Your task to perform on an android device: add a contact in the contacts app Image 0: 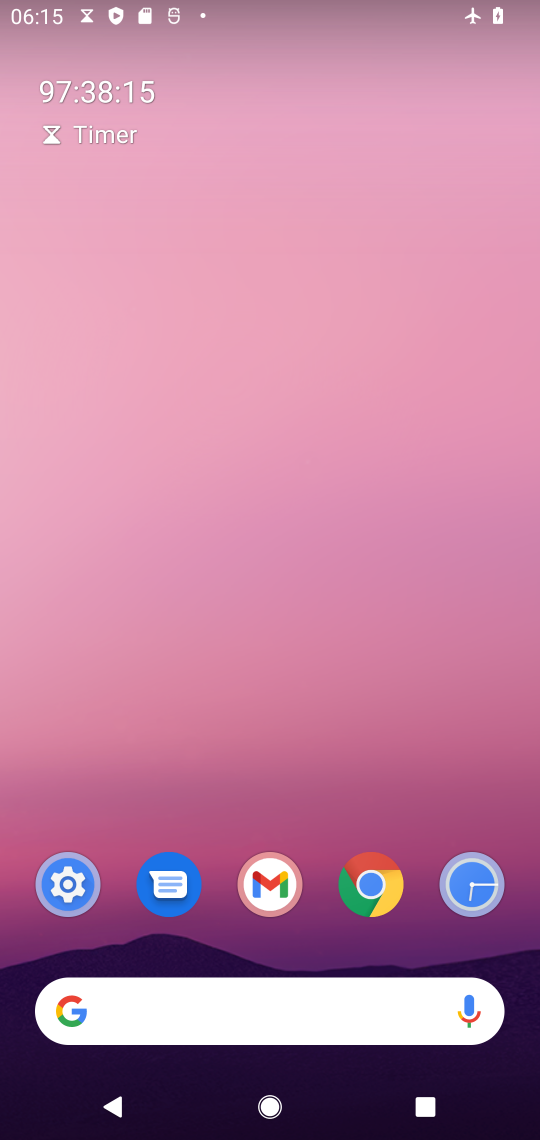
Step 0: drag from (244, 964) to (256, 209)
Your task to perform on an android device: add a contact in the contacts app Image 1: 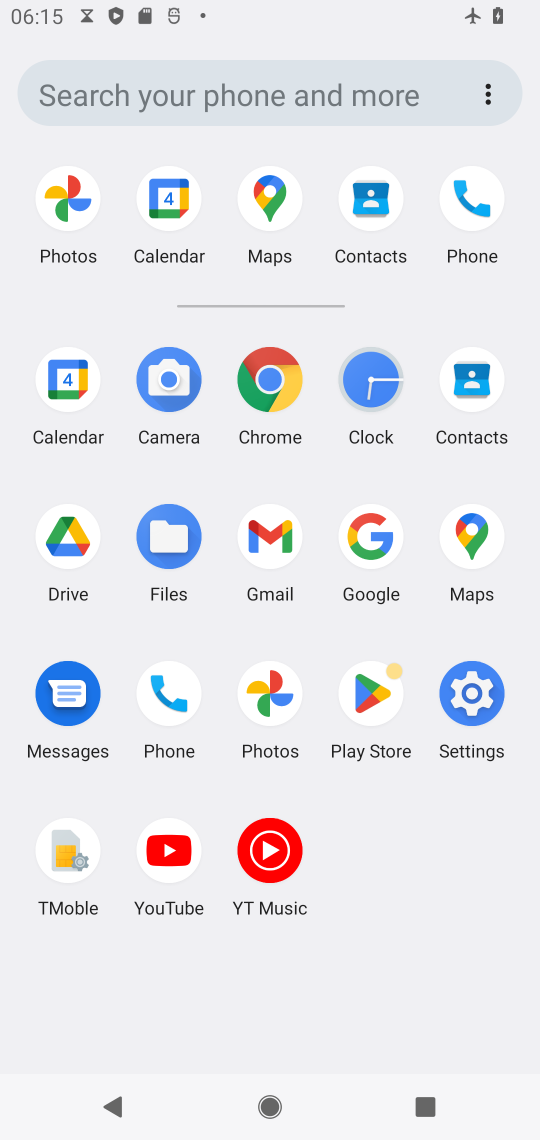
Step 1: click (164, 700)
Your task to perform on an android device: add a contact in the contacts app Image 2: 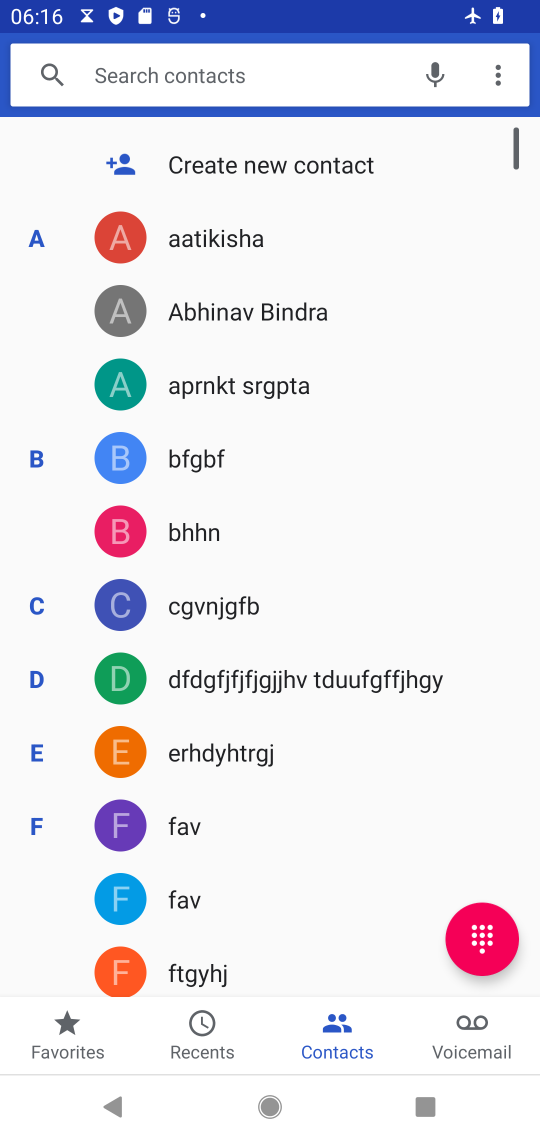
Step 2: click (221, 163)
Your task to perform on an android device: add a contact in the contacts app Image 3: 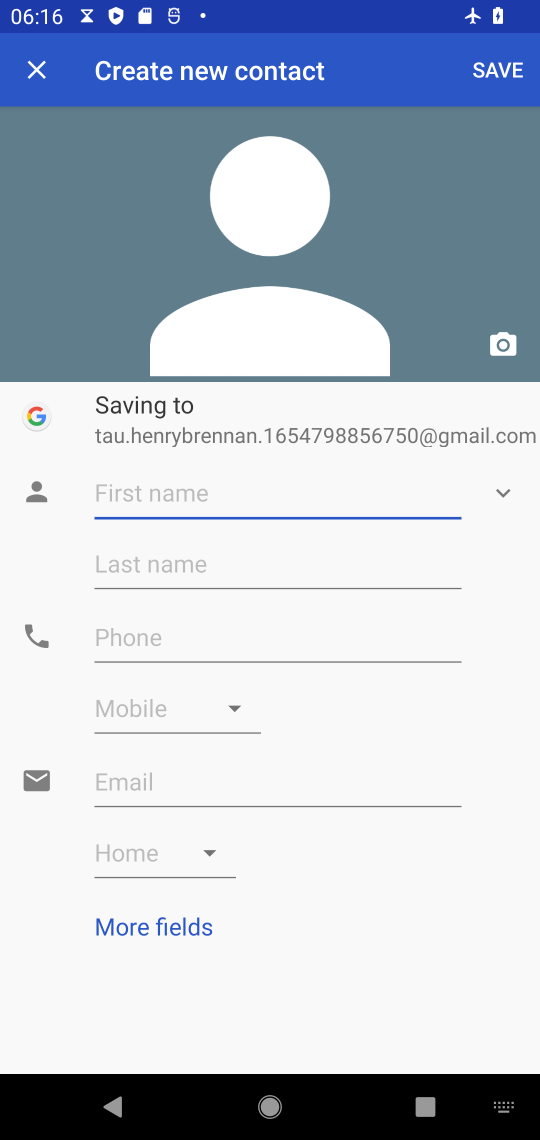
Step 3: click (241, 477)
Your task to perform on an android device: add a contact in the contacts app Image 4: 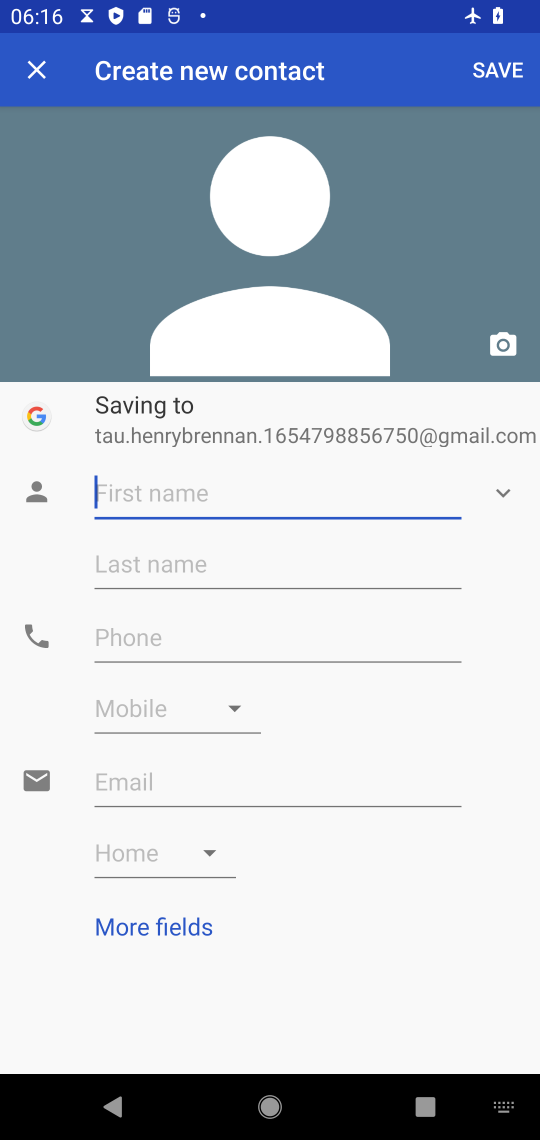
Step 4: type "huhuhuhuhuhuhuhuhuhuhuhuhu  "
Your task to perform on an android device: add a contact in the contacts app Image 5: 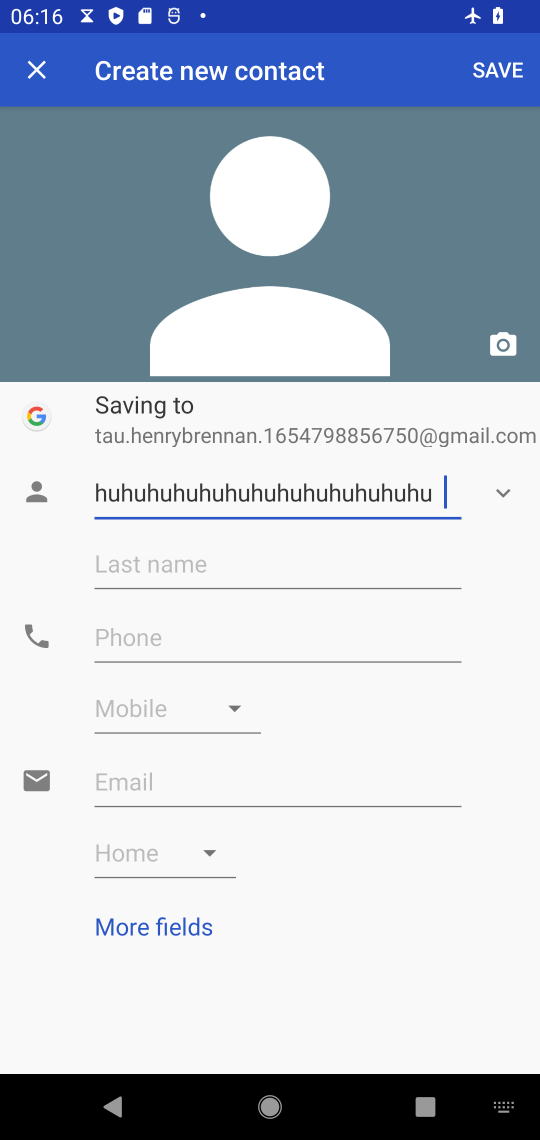
Step 5: click (221, 636)
Your task to perform on an android device: add a contact in the contacts app Image 6: 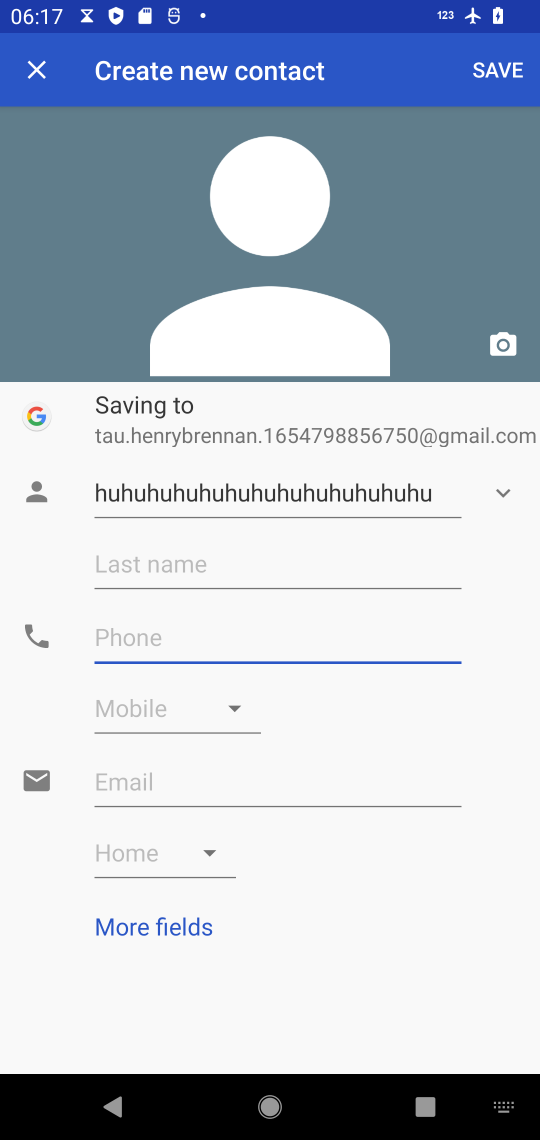
Step 6: type "4444444444444444444"
Your task to perform on an android device: add a contact in the contacts app Image 7: 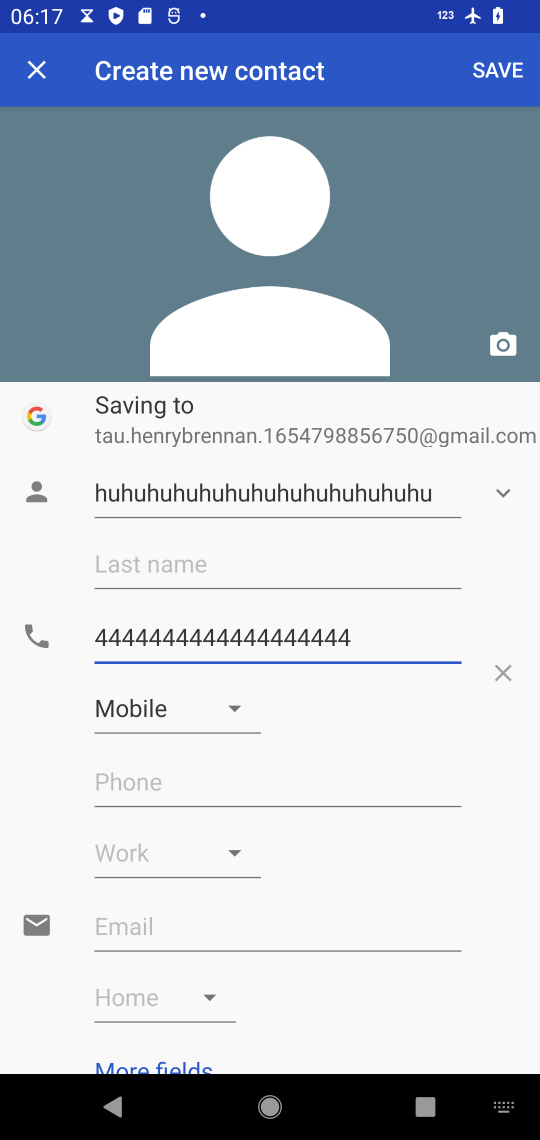
Step 7: click (507, 73)
Your task to perform on an android device: add a contact in the contacts app Image 8: 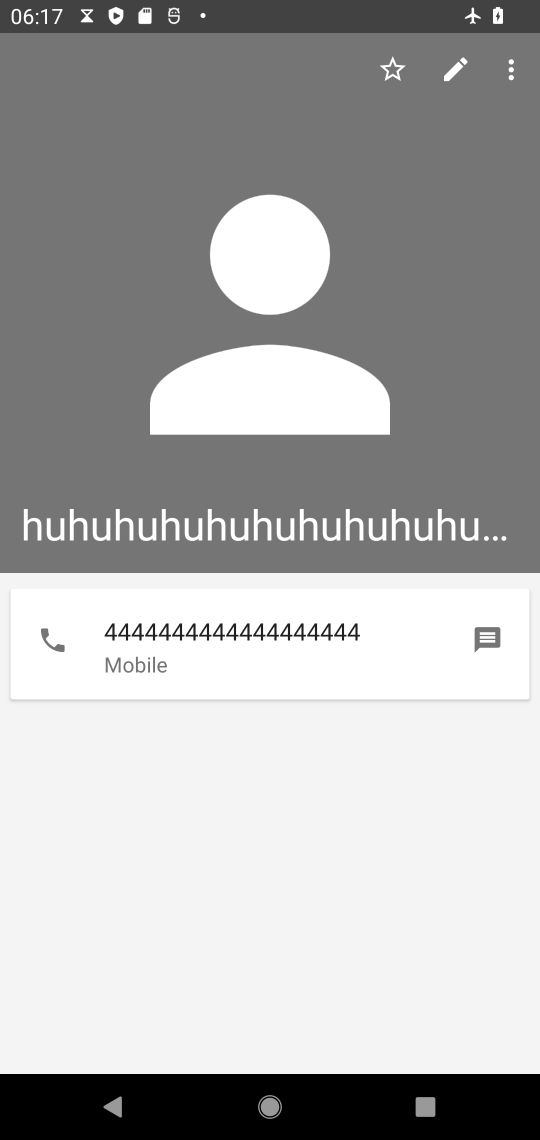
Step 8: task complete